Your task to perform on an android device: turn off location history Image 0: 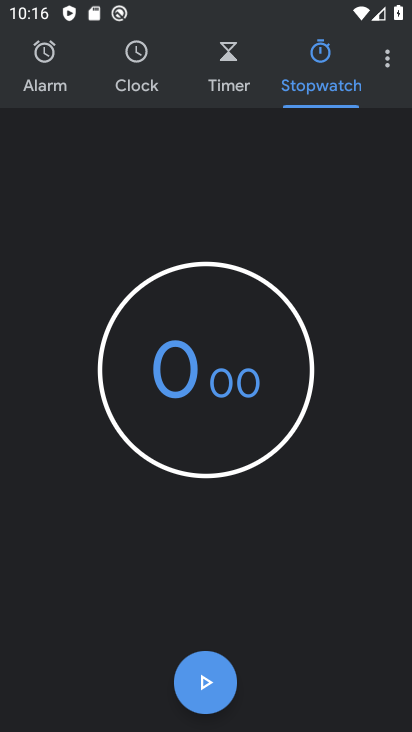
Step 0: press home button
Your task to perform on an android device: turn off location history Image 1: 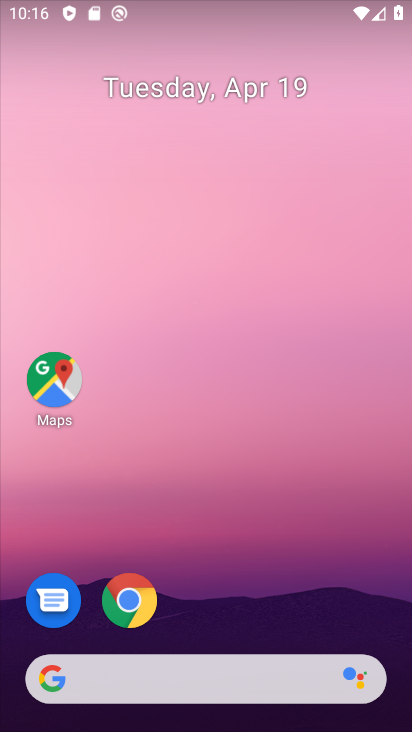
Step 1: drag from (219, 541) to (310, 15)
Your task to perform on an android device: turn off location history Image 2: 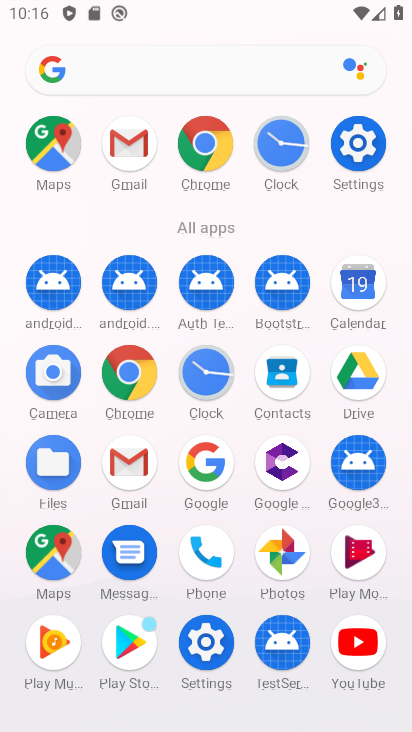
Step 2: click (363, 141)
Your task to perform on an android device: turn off location history Image 3: 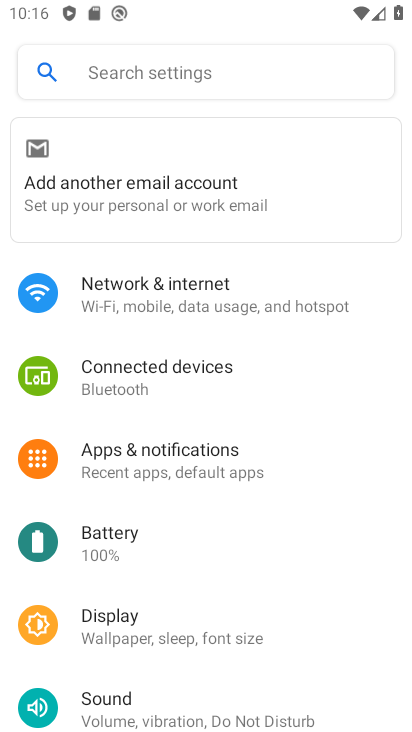
Step 3: drag from (167, 630) to (210, 319)
Your task to perform on an android device: turn off location history Image 4: 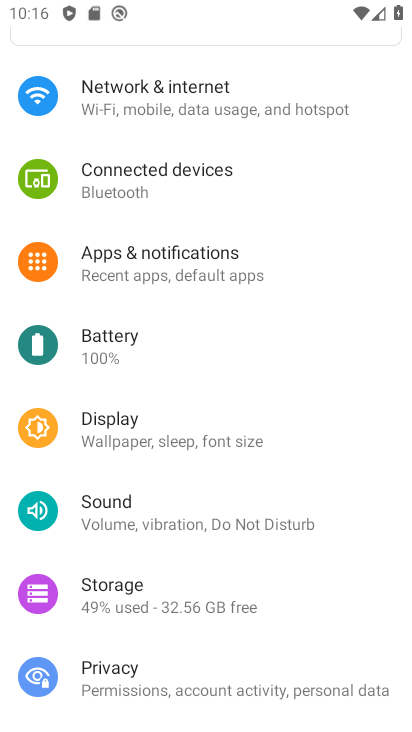
Step 4: drag from (143, 576) to (201, 264)
Your task to perform on an android device: turn off location history Image 5: 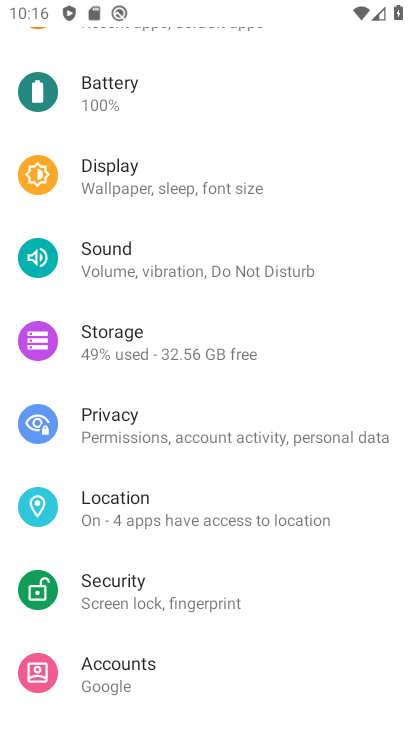
Step 5: click (124, 513)
Your task to perform on an android device: turn off location history Image 6: 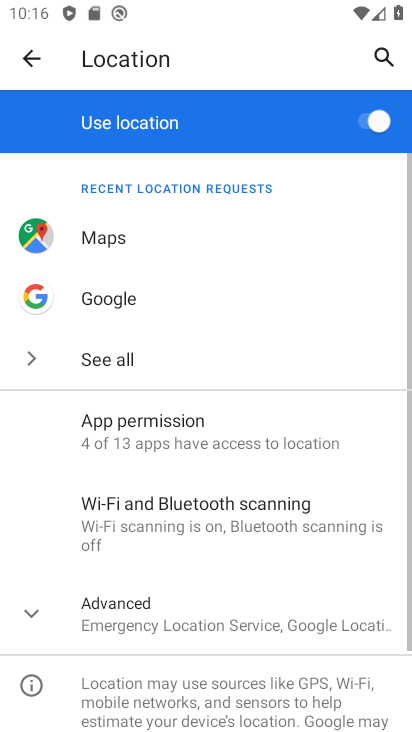
Step 6: click (178, 613)
Your task to perform on an android device: turn off location history Image 7: 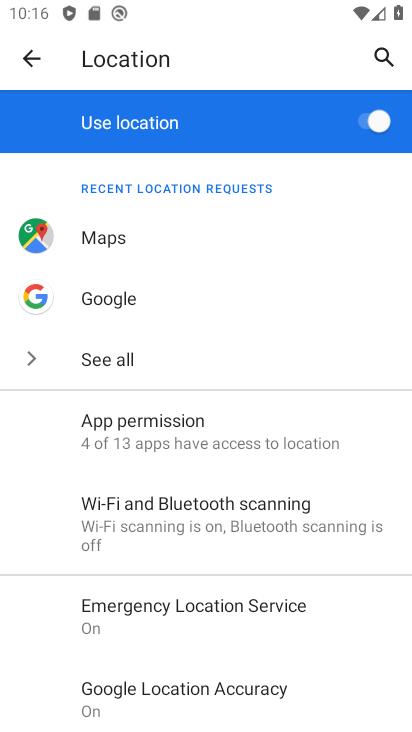
Step 7: drag from (204, 627) to (286, 255)
Your task to perform on an android device: turn off location history Image 8: 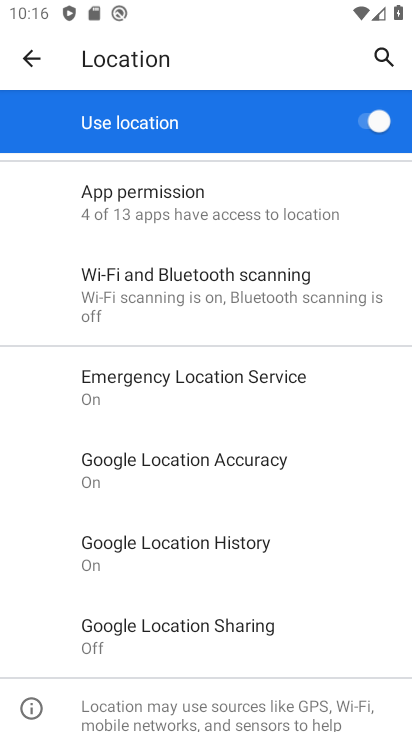
Step 8: click (204, 536)
Your task to perform on an android device: turn off location history Image 9: 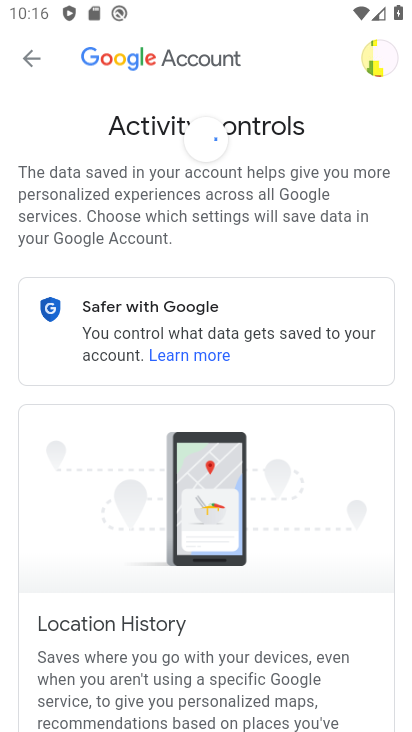
Step 9: drag from (192, 557) to (342, 114)
Your task to perform on an android device: turn off location history Image 10: 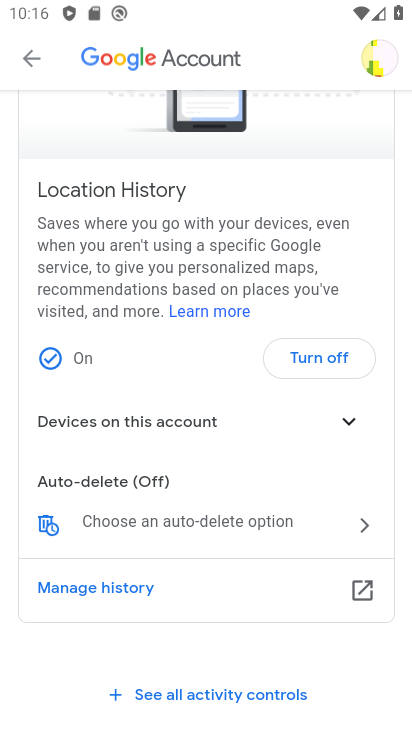
Step 10: click (332, 355)
Your task to perform on an android device: turn off location history Image 11: 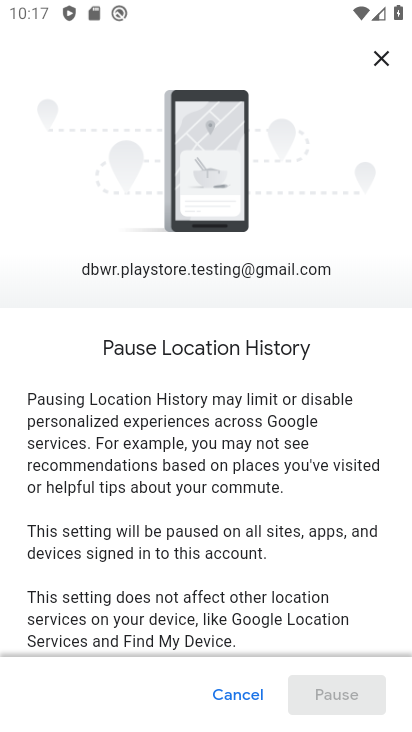
Step 11: drag from (233, 587) to (341, 65)
Your task to perform on an android device: turn off location history Image 12: 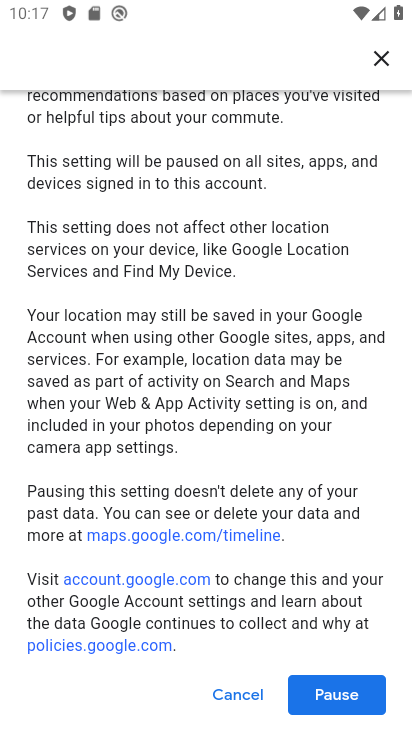
Step 12: click (348, 707)
Your task to perform on an android device: turn off location history Image 13: 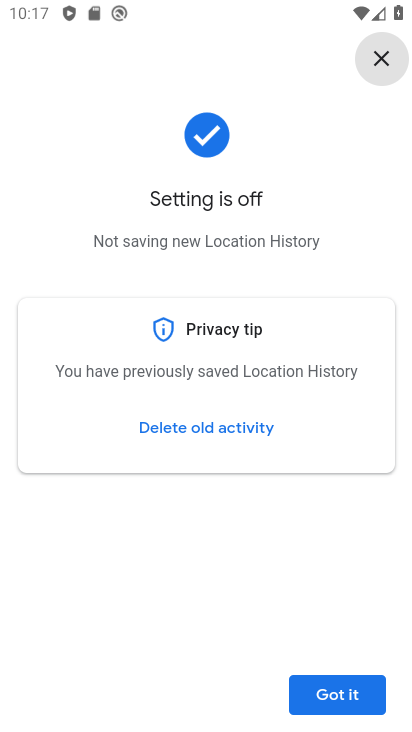
Step 13: click (347, 693)
Your task to perform on an android device: turn off location history Image 14: 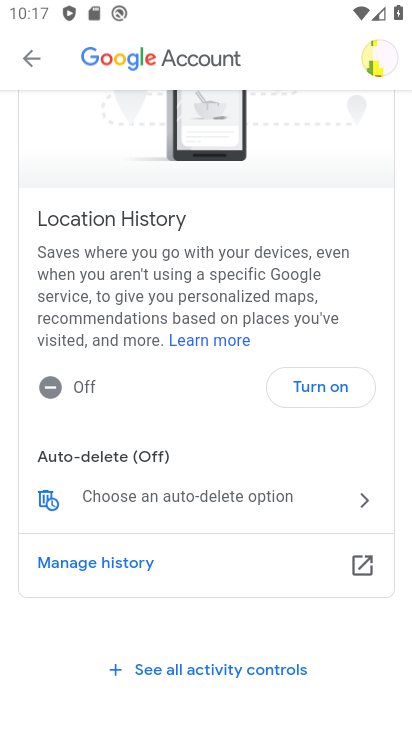
Step 14: task complete